Your task to perform on an android device: turn off notifications settings in the gmail app Image 0: 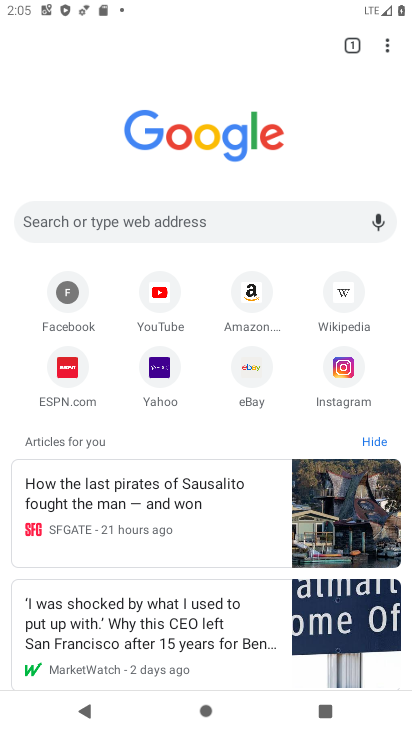
Step 0: press home button
Your task to perform on an android device: turn off notifications settings in the gmail app Image 1: 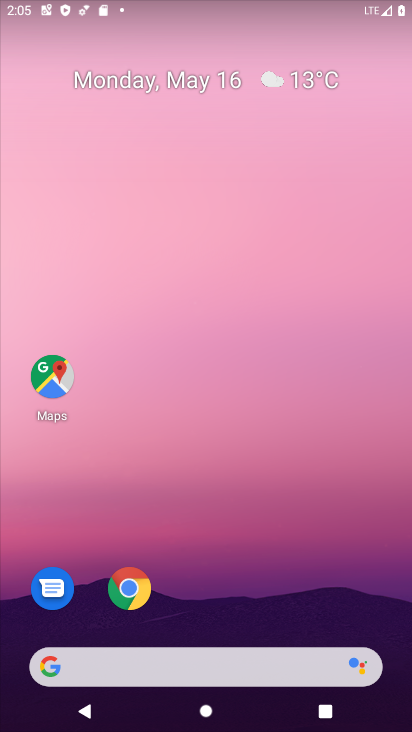
Step 1: drag from (161, 632) to (244, 165)
Your task to perform on an android device: turn off notifications settings in the gmail app Image 2: 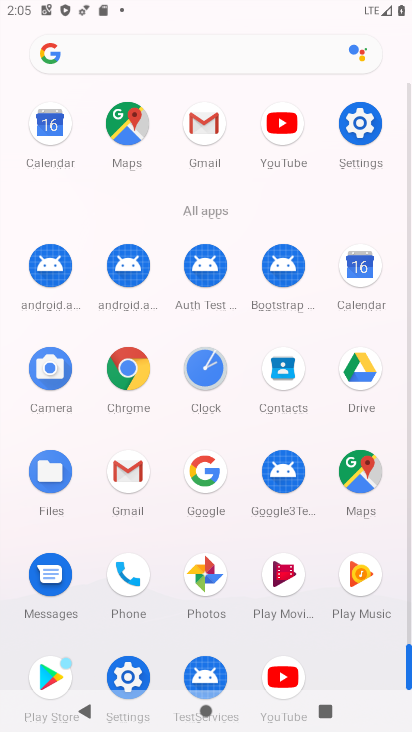
Step 2: drag from (174, 521) to (214, 343)
Your task to perform on an android device: turn off notifications settings in the gmail app Image 3: 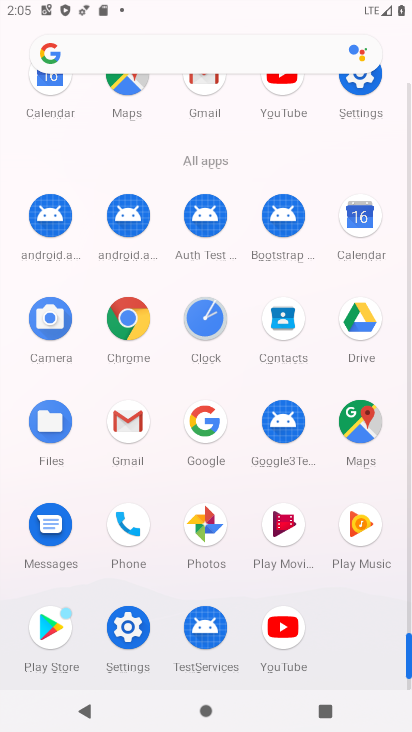
Step 3: click (125, 431)
Your task to perform on an android device: turn off notifications settings in the gmail app Image 4: 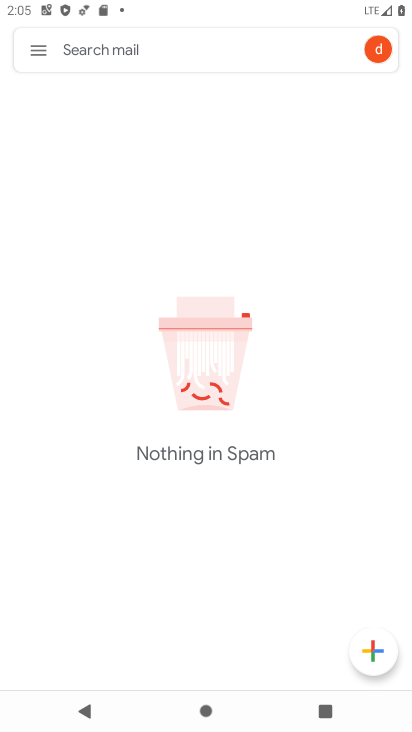
Step 4: click (53, 54)
Your task to perform on an android device: turn off notifications settings in the gmail app Image 5: 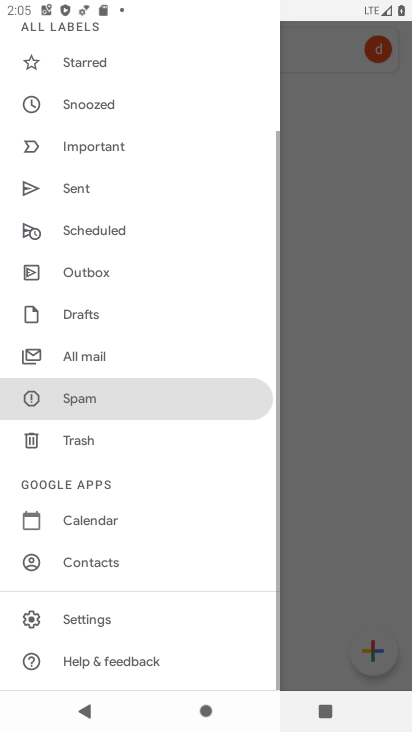
Step 5: drag from (136, 564) to (192, 321)
Your task to perform on an android device: turn off notifications settings in the gmail app Image 6: 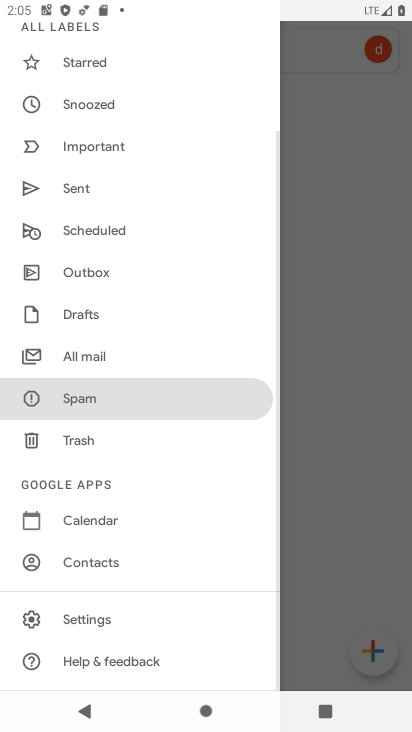
Step 6: click (105, 635)
Your task to perform on an android device: turn off notifications settings in the gmail app Image 7: 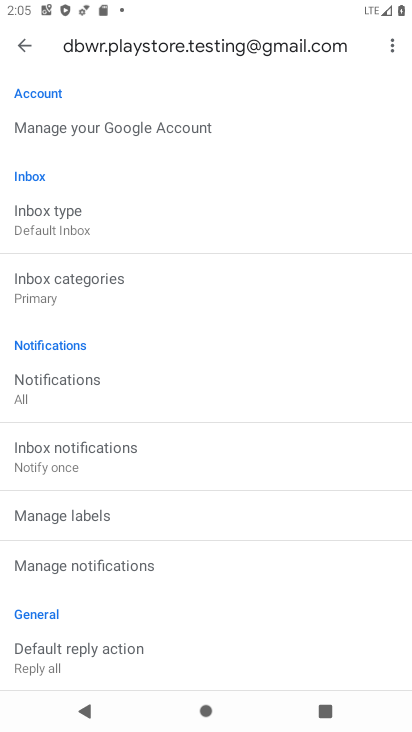
Step 7: click (154, 567)
Your task to perform on an android device: turn off notifications settings in the gmail app Image 8: 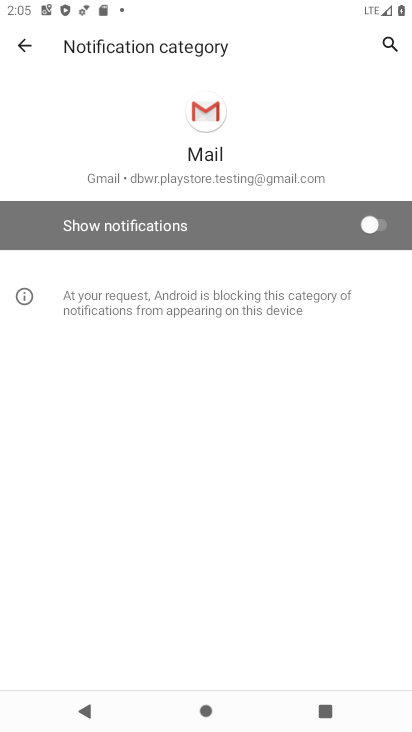
Step 8: task complete